Your task to perform on an android device: Open eBay Image 0: 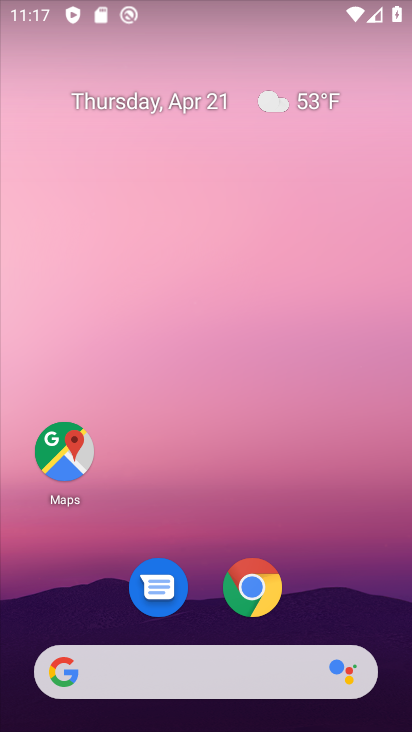
Step 0: click (247, 592)
Your task to perform on an android device: Open eBay Image 1: 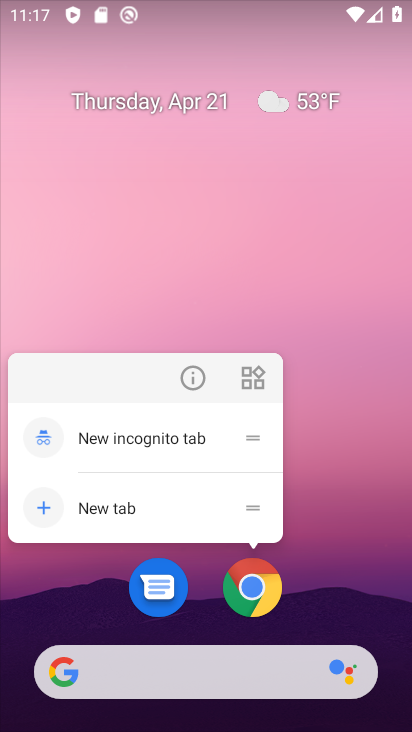
Step 1: click (256, 589)
Your task to perform on an android device: Open eBay Image 2: 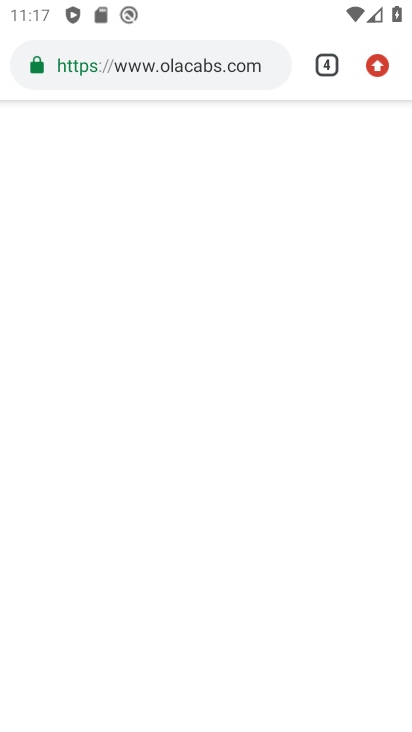
Step 2: click (139, 62)
Your task to perform on an android device: Open eBay Image 3: 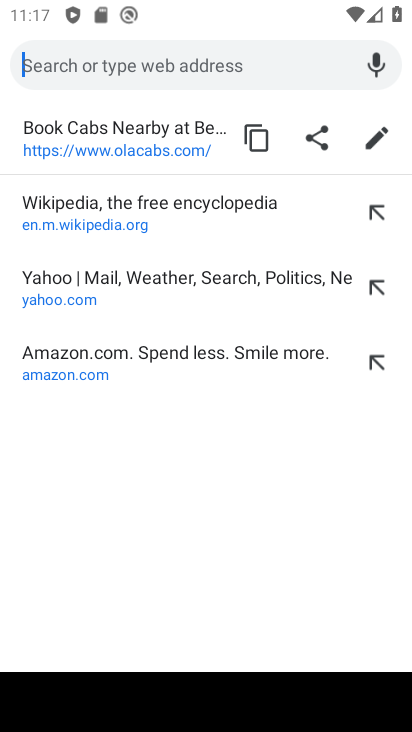
Step 3: click (150, 51)
Your task to perform on an android device: Open eBay Image 4: 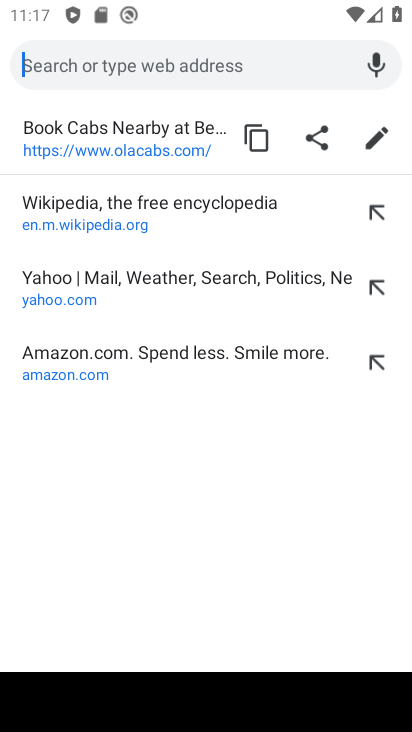
Step 4: type "ebay"
Your task to perform on an android device: Open eBay Image 5: 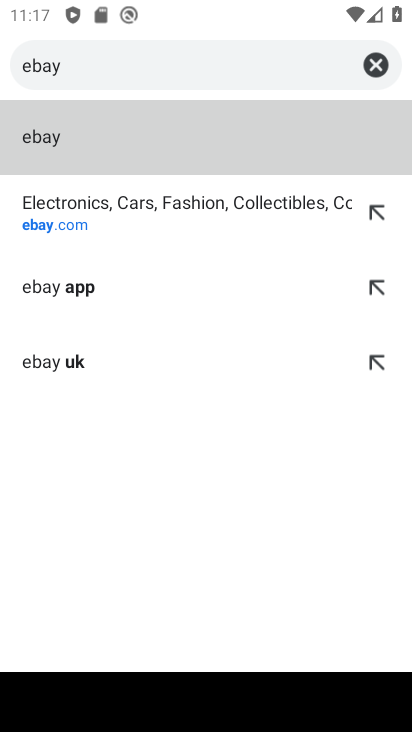
Step 5: click (127, 142)
Your task to perform on an android device: Open eBay Image 6: 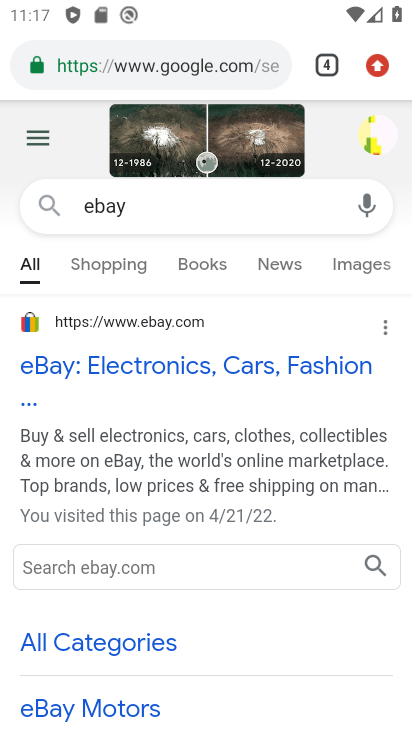
Step 6: click (139, 365)
Your task to perform on an android device: Open eBay Image 7: 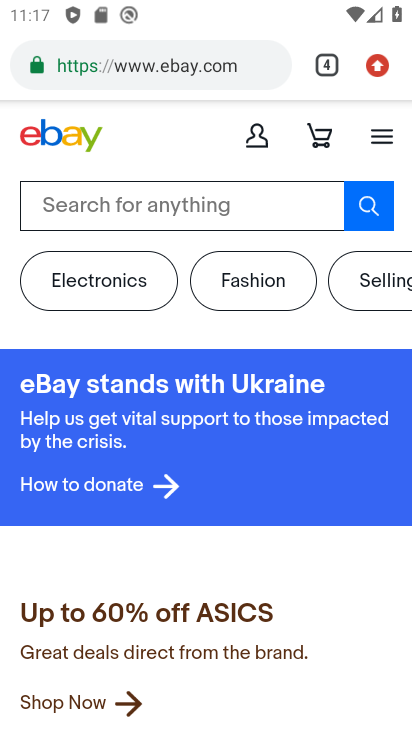
Step 7: task complete